Your task to perform on an android device: Do I have any events today? Image 0: 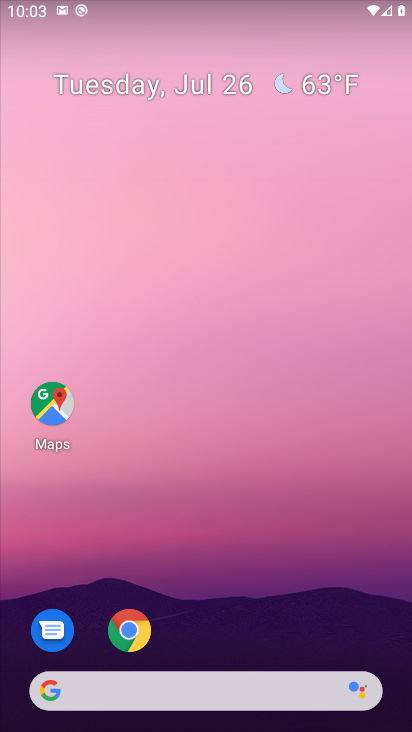
Step 0: drag from (215, 647) to (249, 150)
Your task to perform on an android device: Do I have any events today? Image 1: 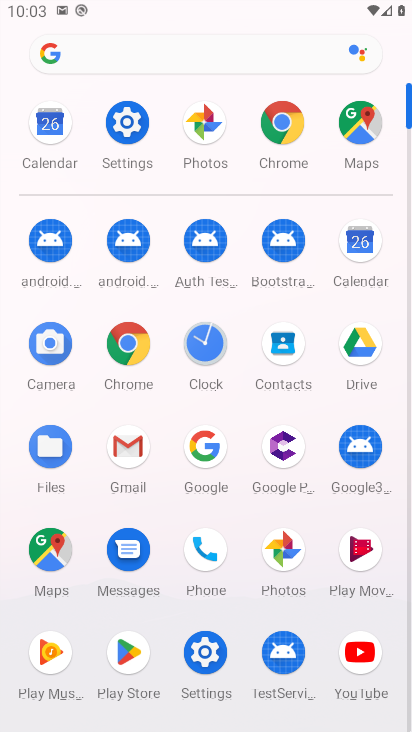
Step 1: click (359, 243)
Your task to perform on an android device: Do I have any events today? Image 2: 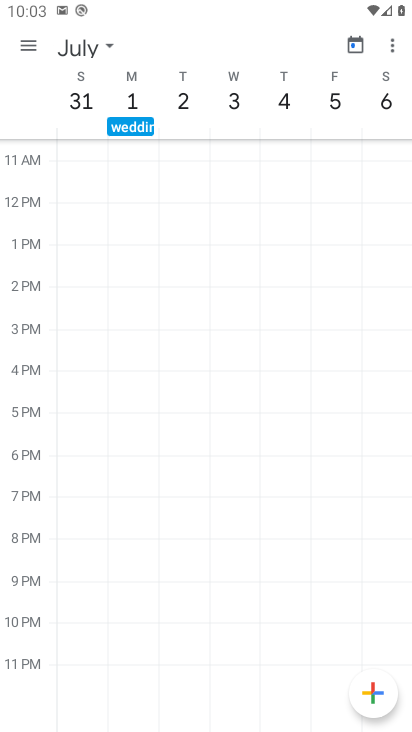
Step 2: drag from (82, 110) to (410, 140)
Your task to perform on an android device: Do I have any events today? Image 3: 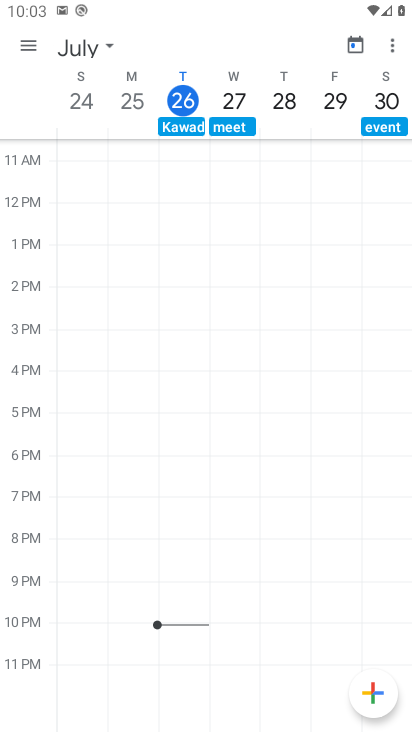
Step 3: click (186, 100)
Your task to perform on an android device: Do I have any events today? Image 4: 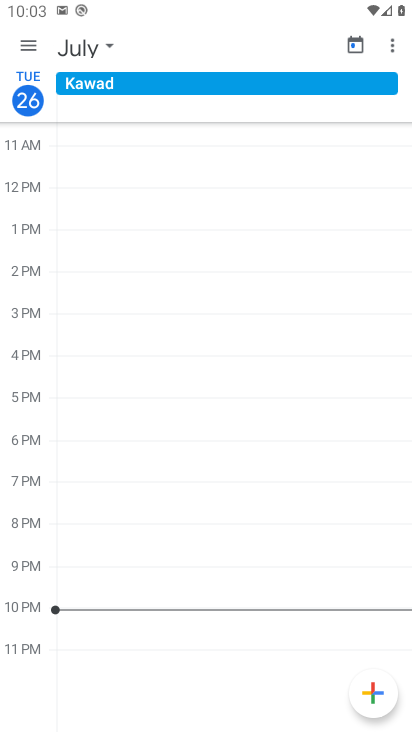
Step 4: task complete